Your task to perform on an android device: turn off wifi Image 0: 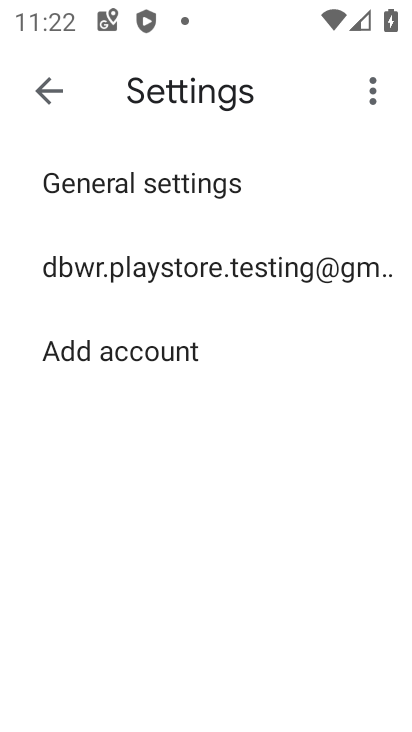
Step 0: press home button
Your task to perform on an android device: turn off wifi Image 1: 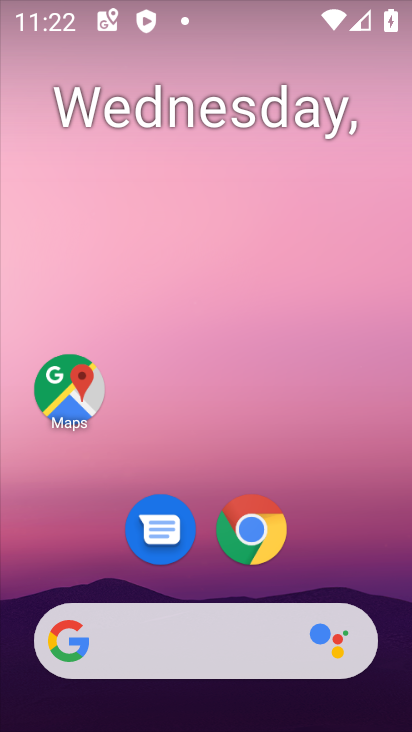
Step 1: drag from (212, 594) to (353, 10)
Your task to perform on an android device: turn off wifi Image 2: 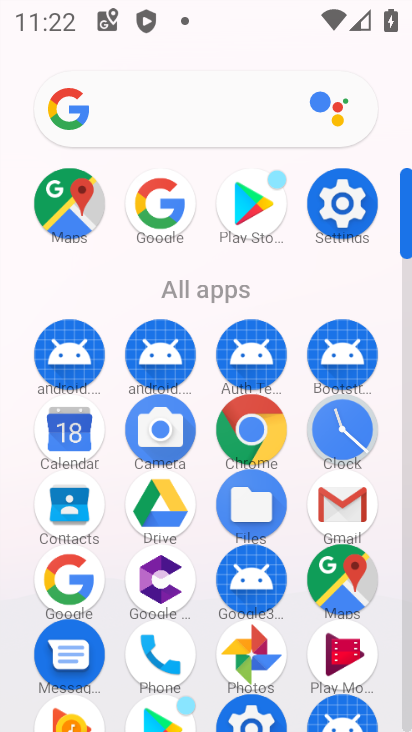
Step 2: click (355, 213)
Your task to perform on an android device: turn off wifi Image 3: 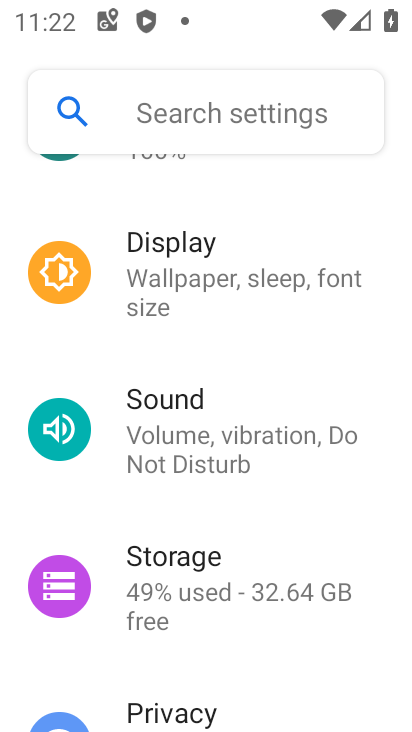
Step 3: drag from (191, 241) to (192, 526)
Your task to perform on an android device: turn off wifi Image 4: 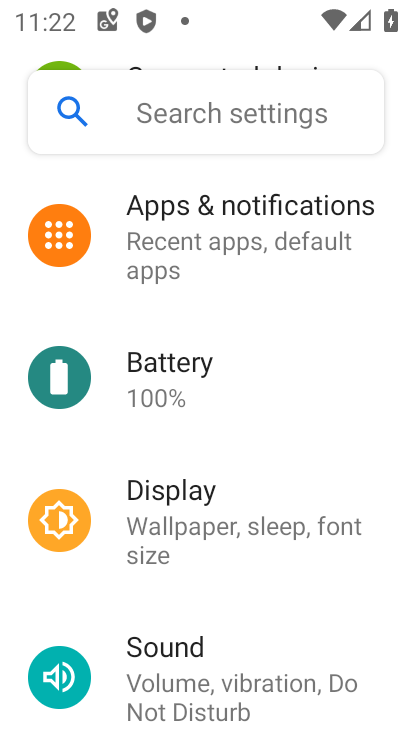
Step 4: drag from (183, 224) to (186, 631)
Your task to perform on an android device: turn off wifi Image 5: 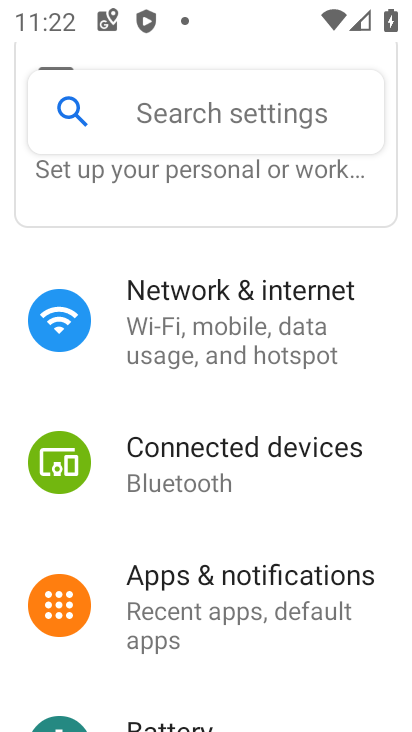
Step 5: click (184, 315)
Your task to perform on an android device: turn off wifi Image 6: 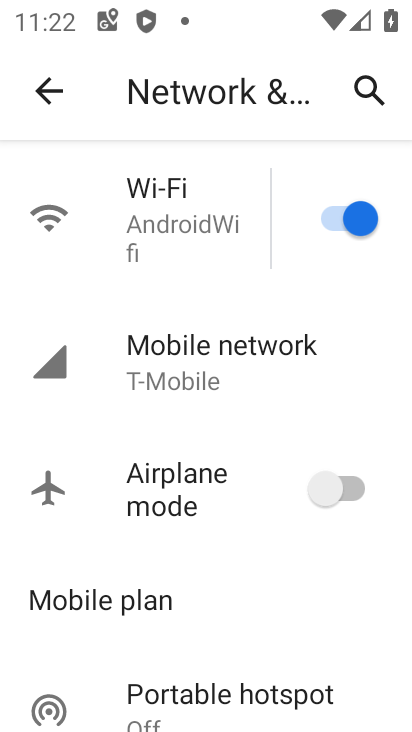
Step 6: click (317, 217)
Your task to perform on an android device: turn off wifi Image 7: 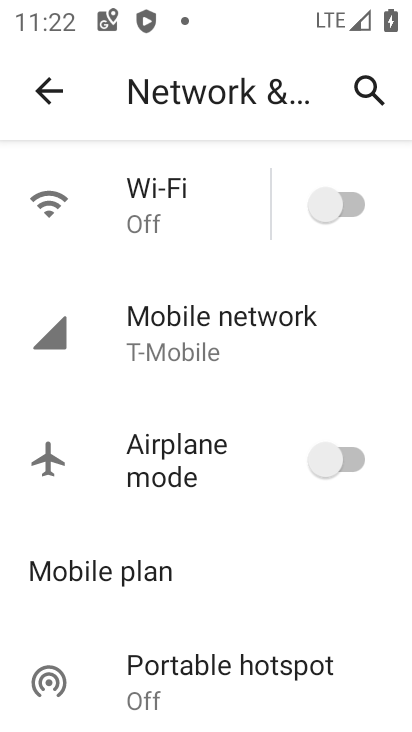
Step 7: task complete